Your task to perform on an android device: Go to internet settings Image 0: 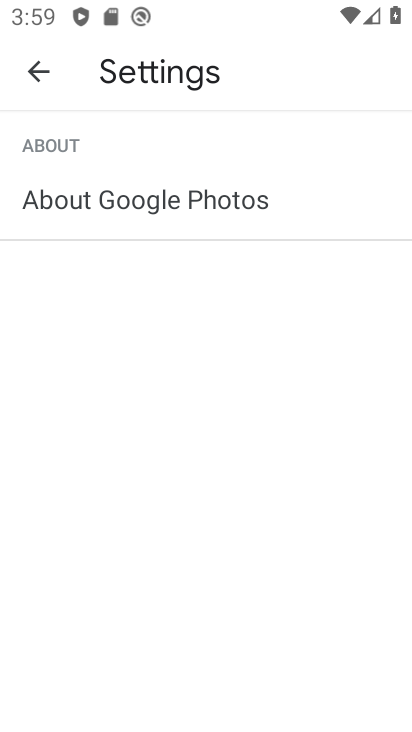
Step 0: press home button
Your task to perform on an android device: Go to internet settings Image 1: 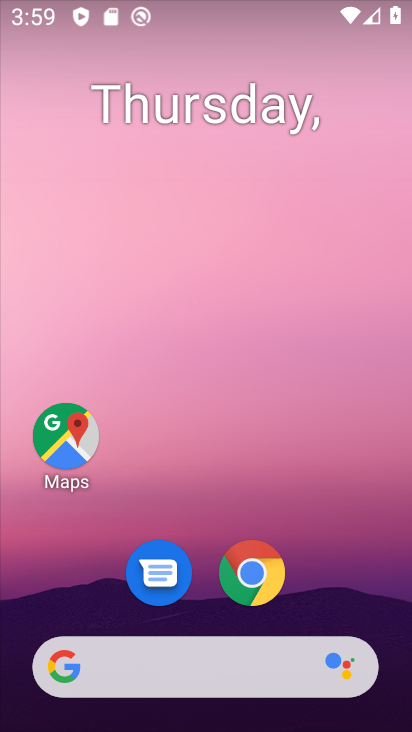
Step 1: drag from (358, 572) to (309, 59)
Your task to perform on an android device: Go to internet settings Image 2: 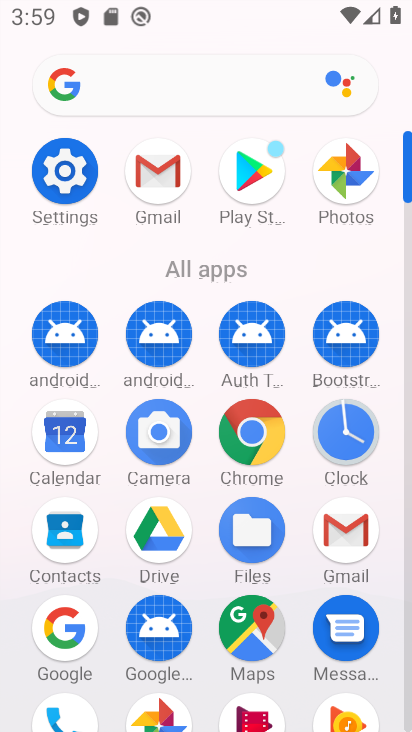
Step 2: click (406, 691)
Your task to perform on an android device: Go to internet settings Image 3: 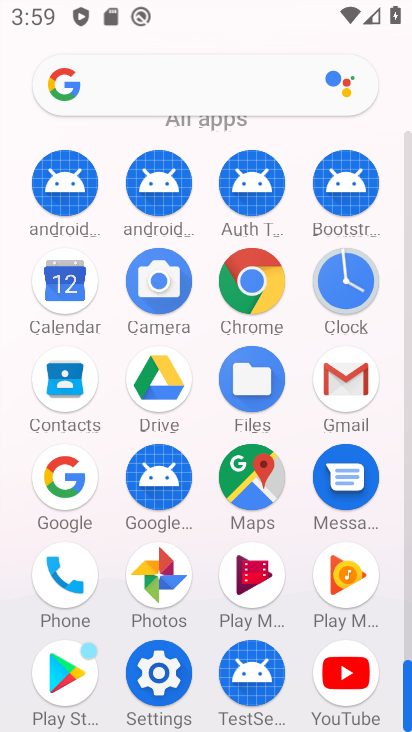
Step 3: click (163, 672)
Your task to perform on an android device: Go to internet settings Image 4: 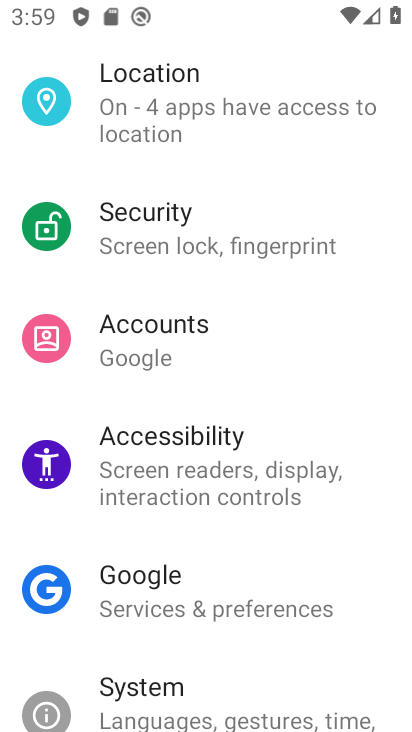
Step 4: drag from (322, 213) to (229, 509)
Your task to perform on an android device: Go to internet settings Image 5: 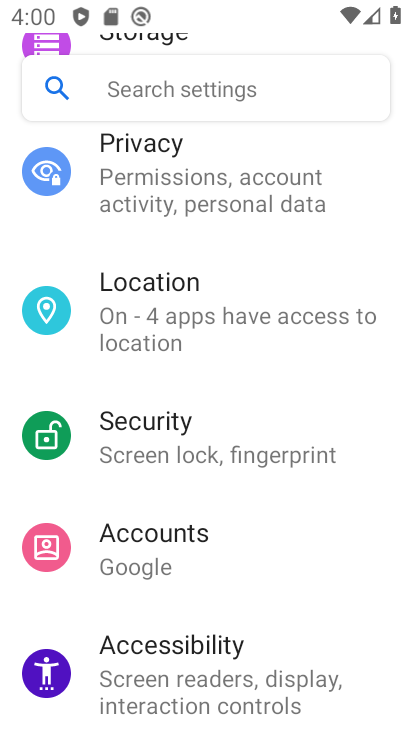
Step 5: drag from (246, 202) to (212, 481)
Your task to perform on an android device: Go to internet settings Image 6: 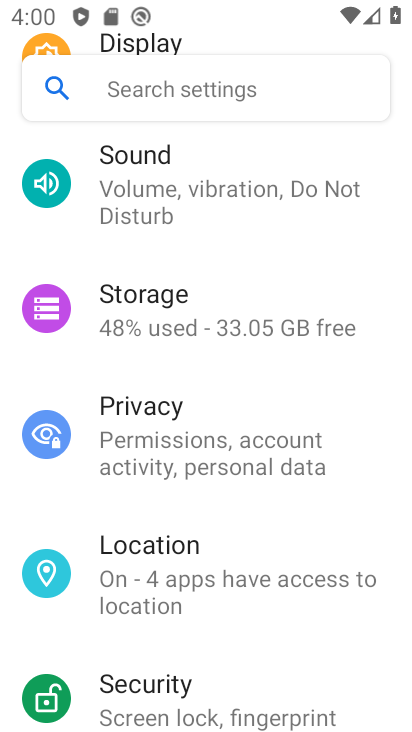
Step 6: drag from (277, 215) to (248, 496)
Your task to perform on an android device: Go to internet settings Image 7: 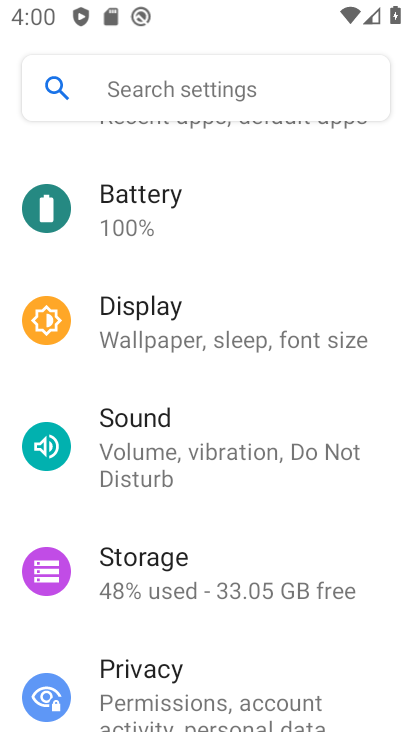
Step 7: drag from (259, 218) to (216, 587)
Your task to perform on an android device: Go to internet settings Image 8: 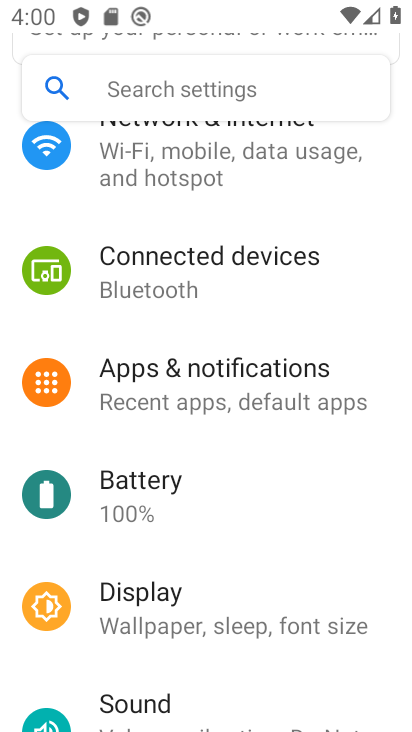
Step 8: drag from (262, 229) to (235, 559)
Your task to perform on an android device: Go to internet settings Image 9: 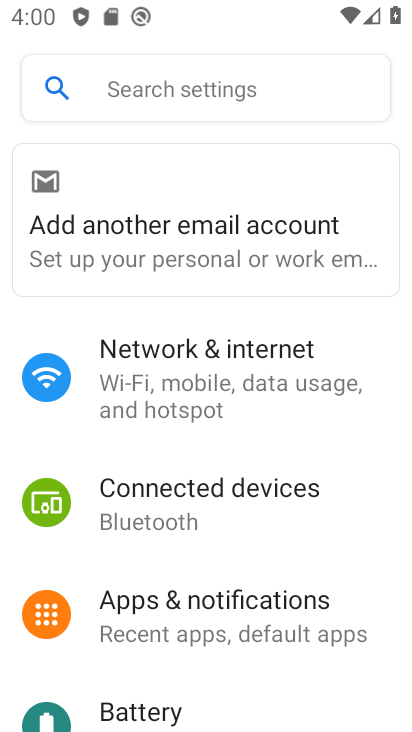
Step 9: click (169, 358)
Your task to perform on an android device: Go to internet settings Image 10: 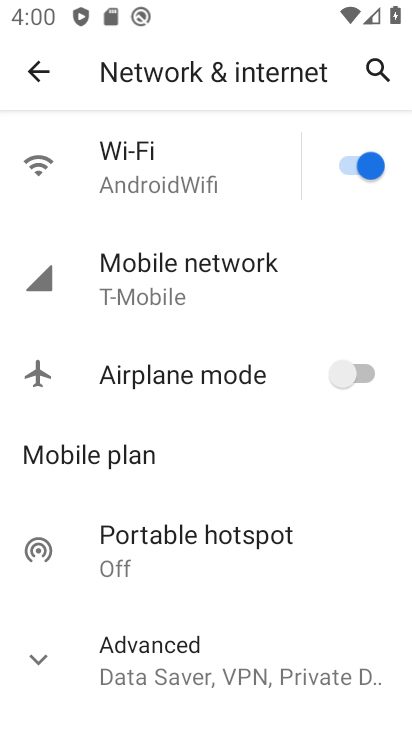
Step 10: click (134, 267)
Your task to perform on an android device: Go to internet settings Image 11: 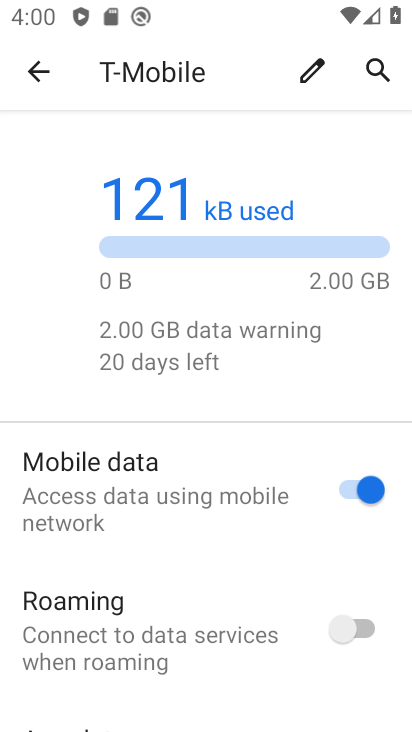
Step 11: task complete